Your task to perform on an android device: manage bookmarks in the chrome app Image 0: 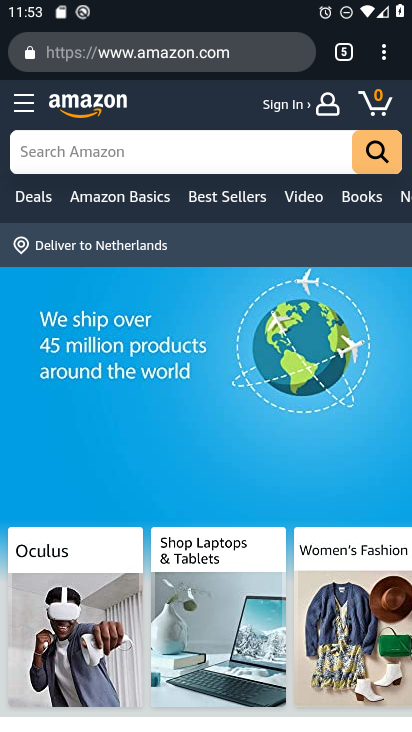
Step 0: press home button
Your task to perform on an android device: manage bookmarks in the chrome app Image 1: 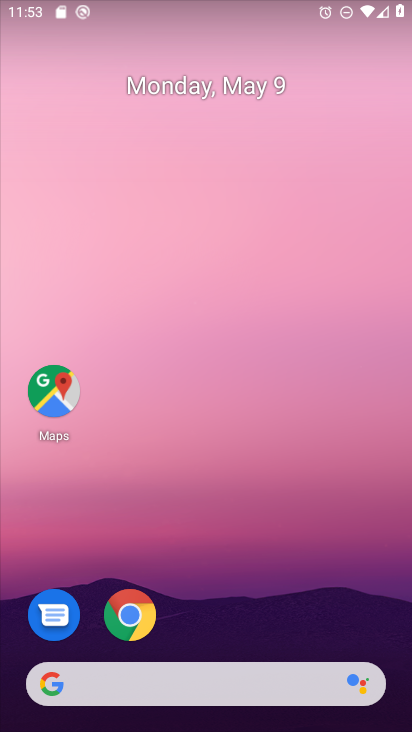
Step 1: drag from (230, 710) to (374, 244)
Your task to perform on an android device: manage bookmarks in the chrome app Image 2: 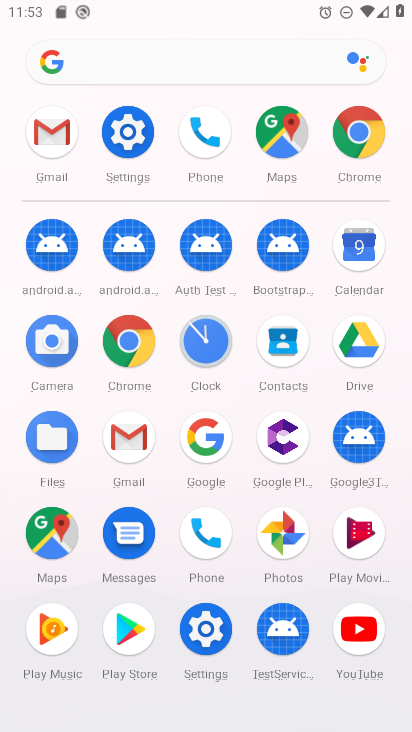
Step 2: click (123, 333)
Your task to perform on an android device: manage bookmarks in the chrome app Image 3: 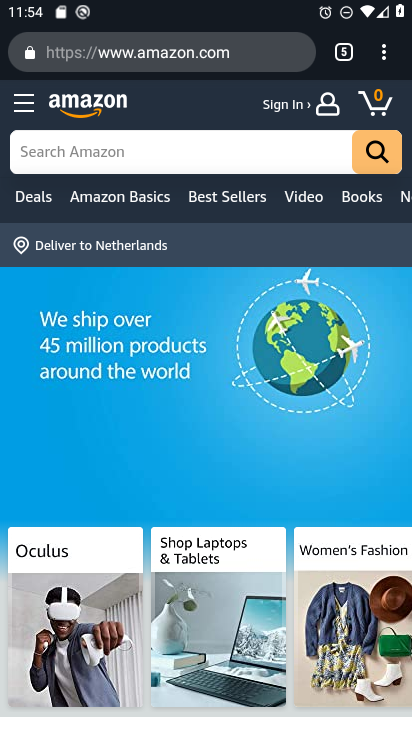
Step 3: click (371, 60)
Your task to perform on an android device: manage bookmarks in the chrome app Image 4: 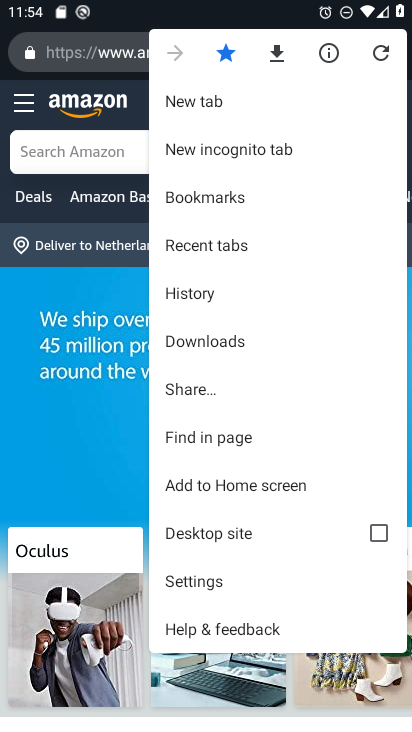
Step 4: click (211, 201)
Your task to perform on an android device: manage bookmarks in the chrome app Image 5: 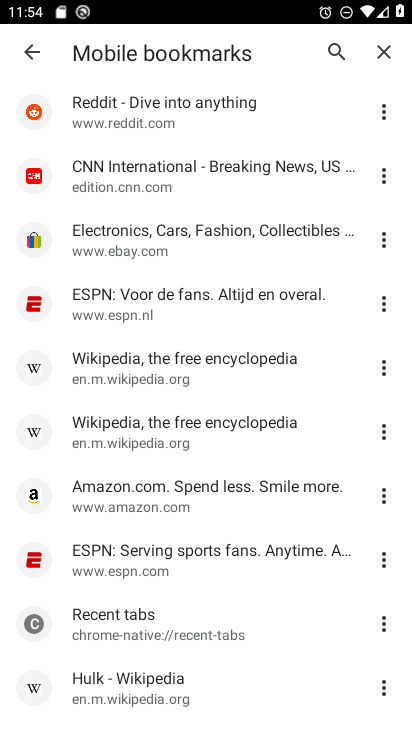
Step 5: task complete